Your task to perform on an android device: toggle notifications settings in the gmail app Image 0: 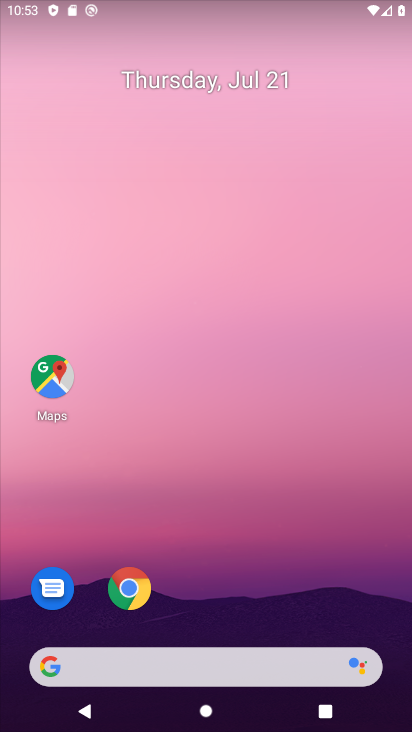
Step 0: press home button
Your task to perform on an android device: toggle notifications settings in the gmail app Image 1: 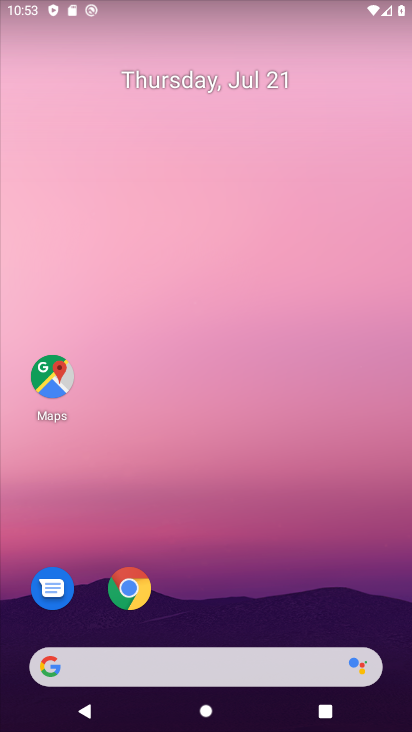
Step 1: drag from (216, 635) to (192, 56)
Your task to perform on an android device: toggle notifications settings in the gmail app Image 2: 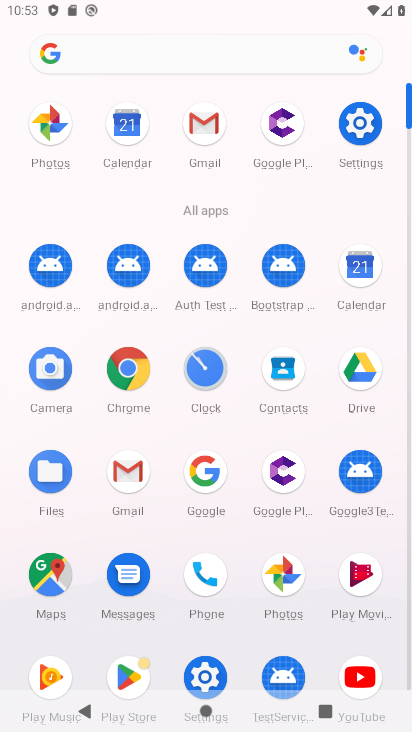
Step 2: click (201, 118)
Your task to perform on an android device: toggle notifications settings in the gmail app Image 3: 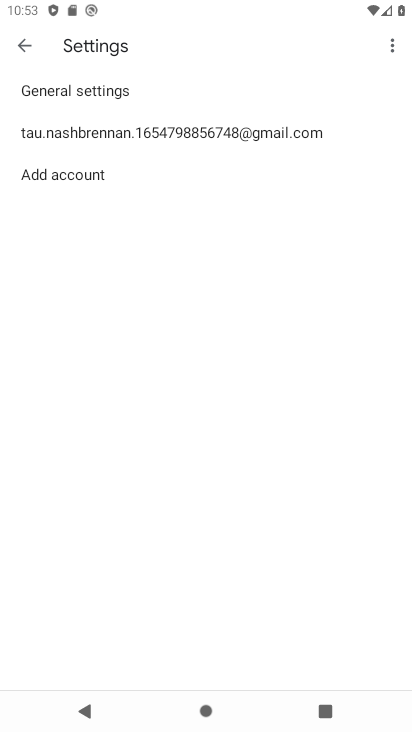
Step 3: click (134, 86)
Your task to perform on an android device: toggle notifications settings in the gmail app Image 4: 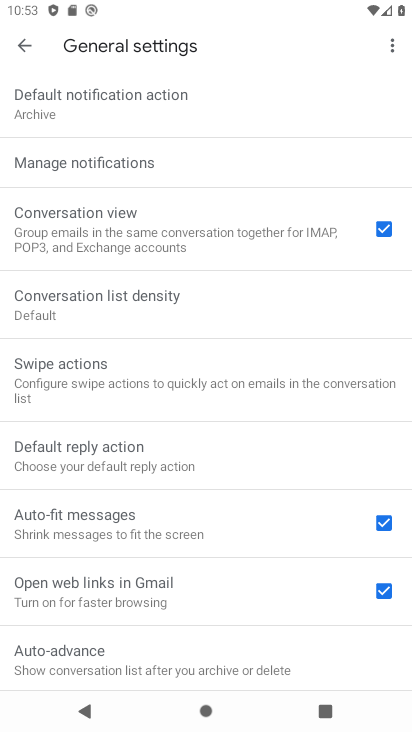
Step 4: click (160, 163)
Your task to perform on an android device: toggle notifications settings in the gmail app Image 5: 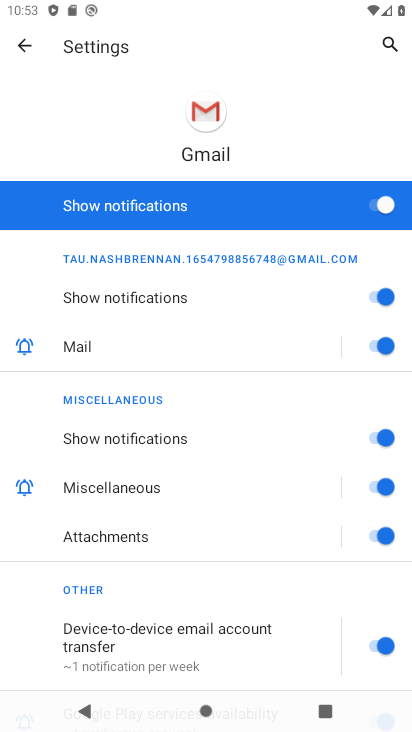
Step 5: click (373, 203)
Your task to perform on an android device: toggle notifications settings in the gmail app Image 6: 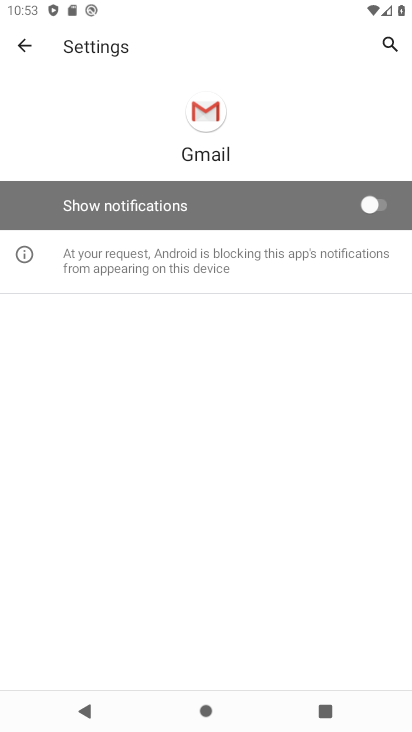
Step 6: task complete